Your task to perform on an android device: set an alarm Image 0: 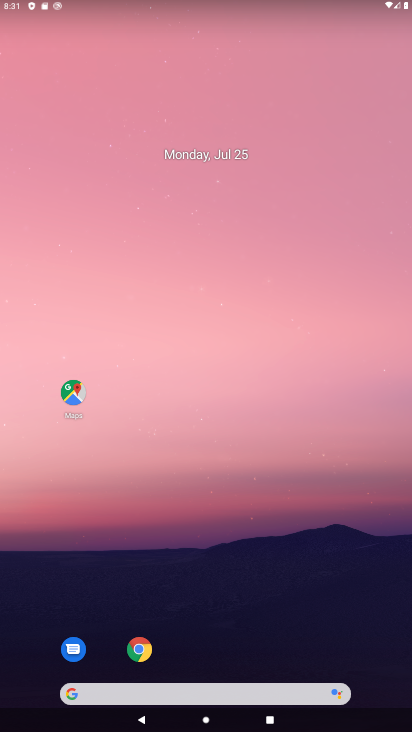
Step 0: drag from (192, 656) to (214, 234)
Your task to perform on an android device: set an alarm Image 1: 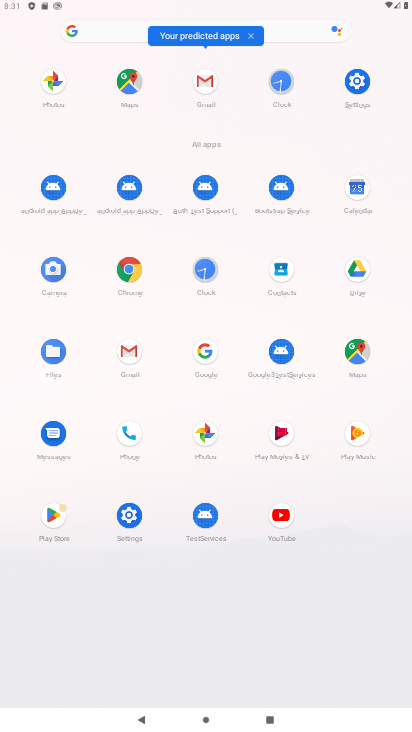
Step 1: click (280, 85)
Your task to perform on an android device: set an alarm Image 2: 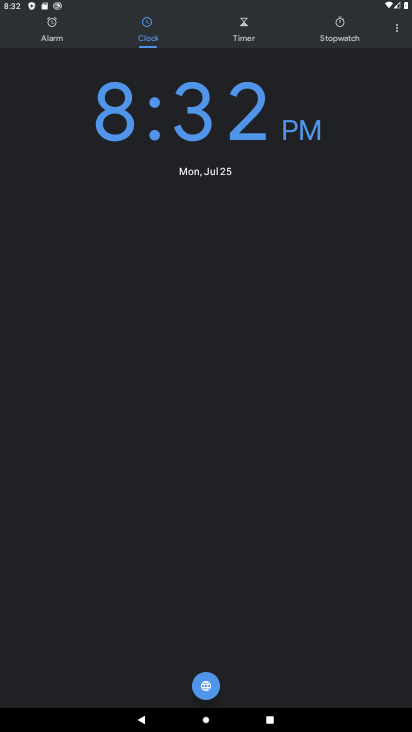
Step 2: click (64, 41)
Your task to perform on an android device: set an alarm Image 3: 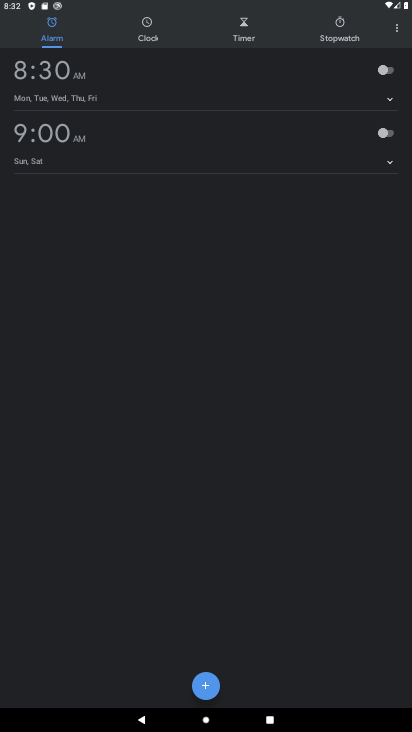
Step 3: click (405, 65)
Your task to perform on an android device: set an alarm Image 4: 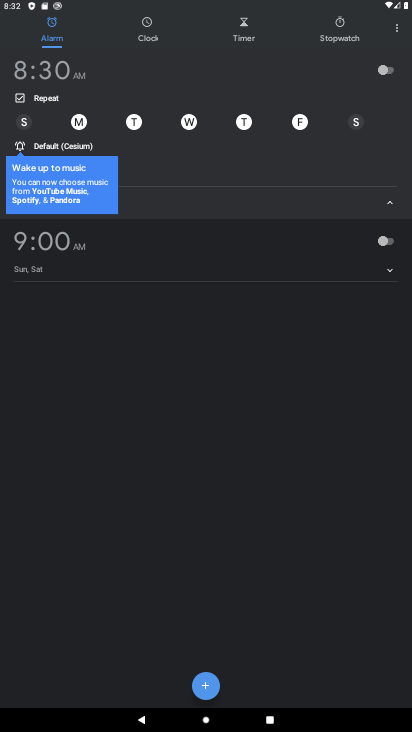
Step 4: click (201, 352)
Your task to perform on an android device: set an alarm Image 5: 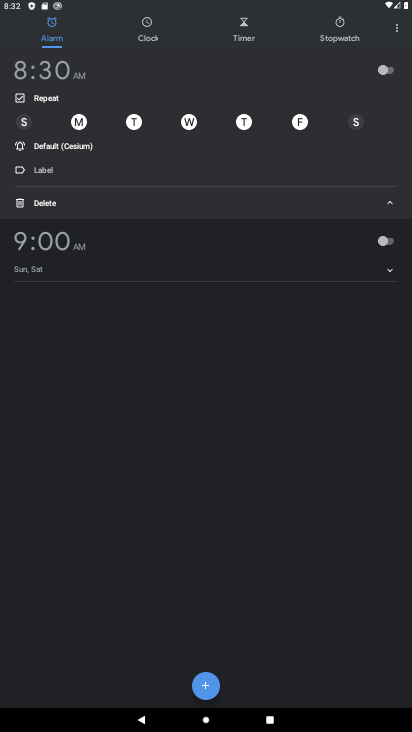
Step 5: task complete